Your task to perform on an android device: see creations saved in the google photos Image 0: 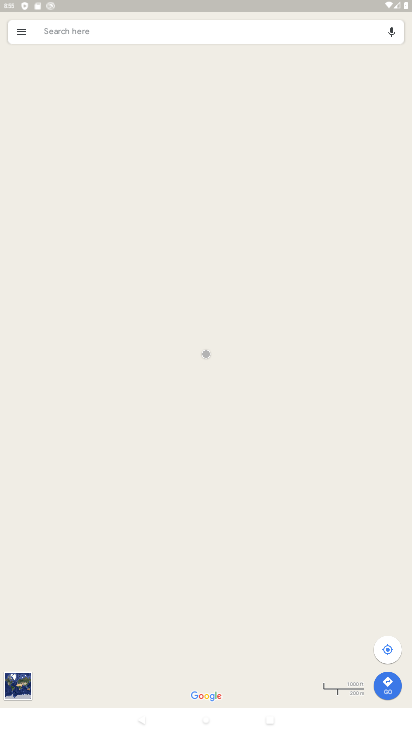
Step 0: press home button
Your task to perform on an android device: see creations saved in the google photos Image 1: 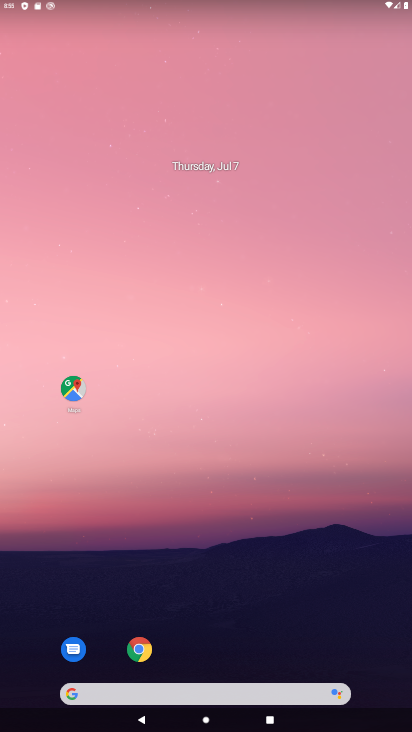
Step 1: drag from (289, 485) to (298, 237)
Your task to perform on an android device: see creations saved in the google photos Image 2: 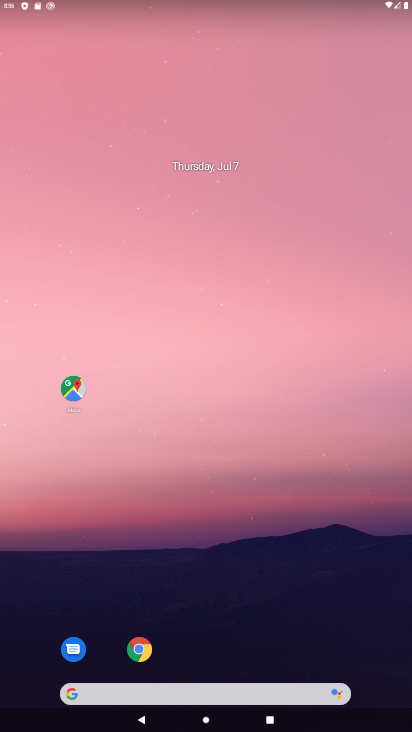
Step 2: drag from (269, 507) to (299, 130)
Your task to perform on an android device: see creations saved in the google photos Image 3: 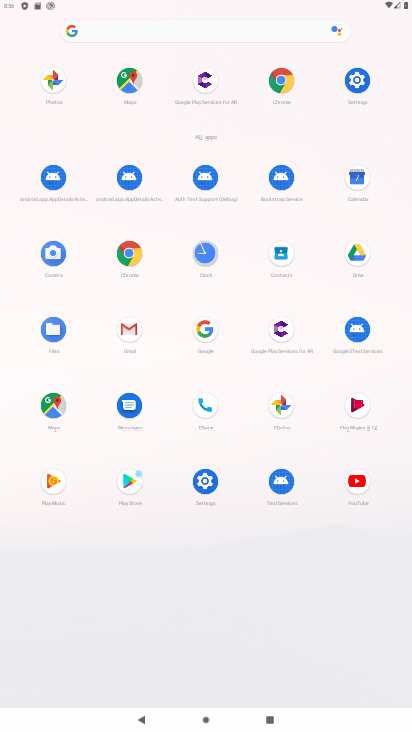
Step 3: click (60, 76)
Your task to perform on an android device: see creations saved in the google photos Image 4: 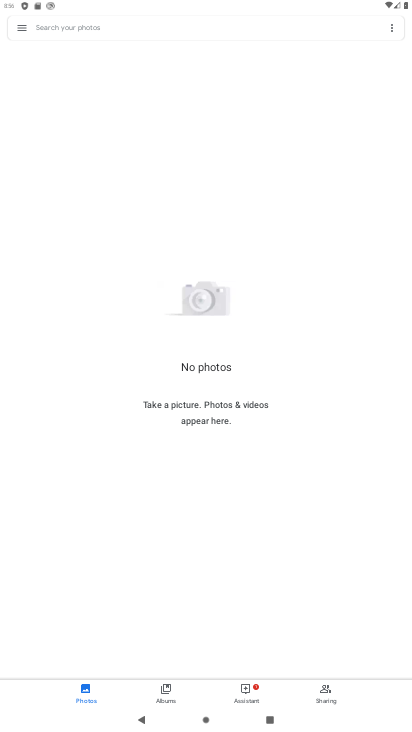
Step 4: click (160, 688)
Your task to perform on an android device: see creations saved in the google photos Image 5: 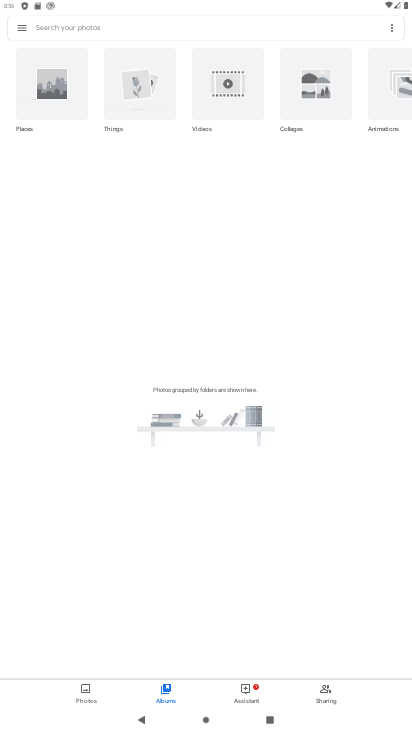
Step 5: task complete